Your task to perform on an android device: Show me productivity apps on the Play Store Image 0: 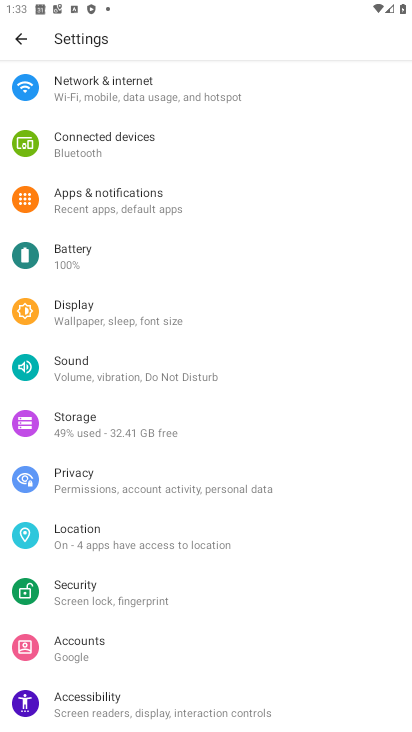
Step 0: press home button
Your task to perform on an android device: Show me productivity apps on the Play Store Image 1: 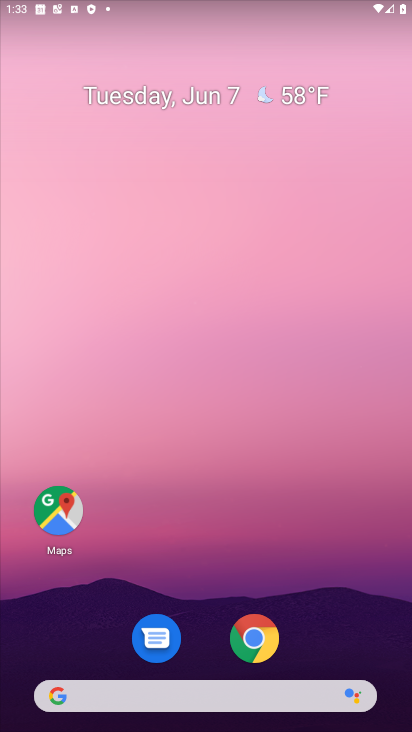
Step 1: drag from (203, 621) to (238, 201)
Your task to perform on an android device: Show me productivity apps on the Play Store Image 2: 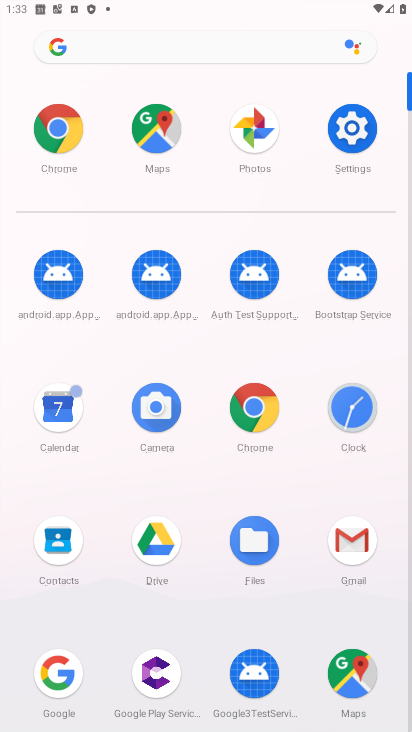
Step 2: drag from (248, 320) to (279, 242)
Your task to perform on an android device: Show me productivity apps on the Play Store Image 3: 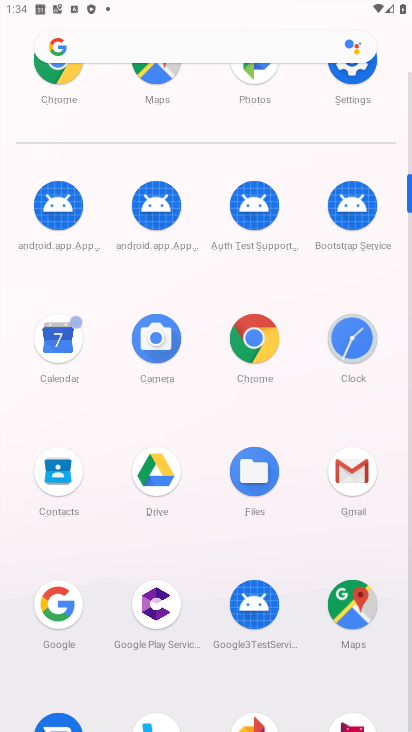
Step 3: drag from (211, 668) to (259, 289)
Your task to perform on an android device: Show me productivity apps on the Play Store Image 4: 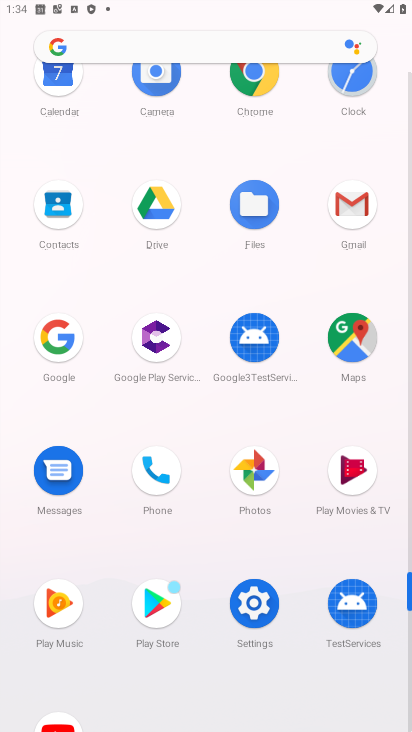
Step 4: click (160, 598)
Your task to perform on an android device: Show me productivity apps on the Play Store Image 5: 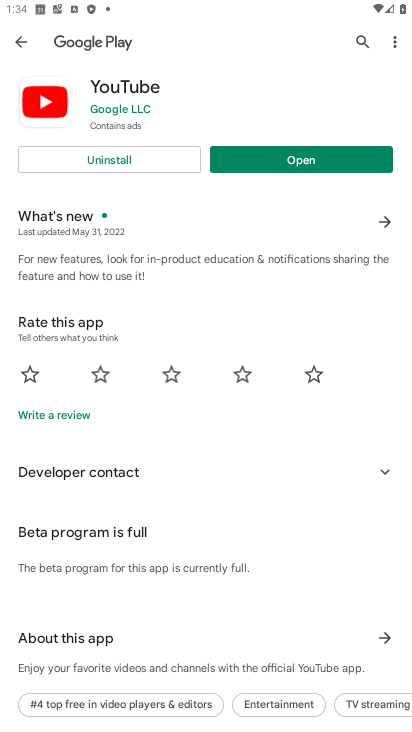
Step 5: click (17, 34)
Your task to perform on an android device: Show me productivity apps on the Play Store Image 6: 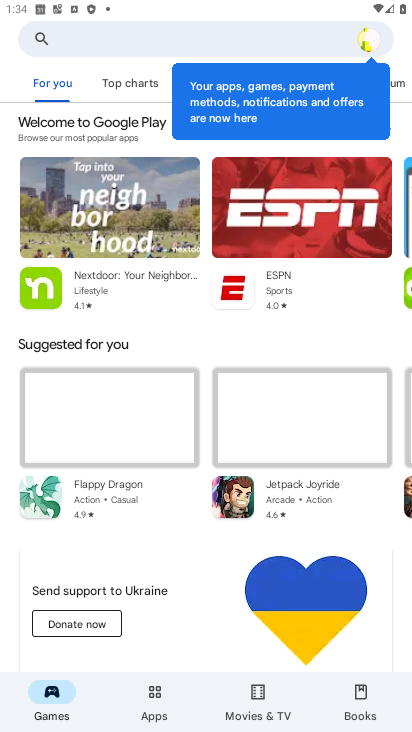
Step 6: click (151, 712)
Your task to perform on an android device: Show me productivity apps on the Play Store Image 7: 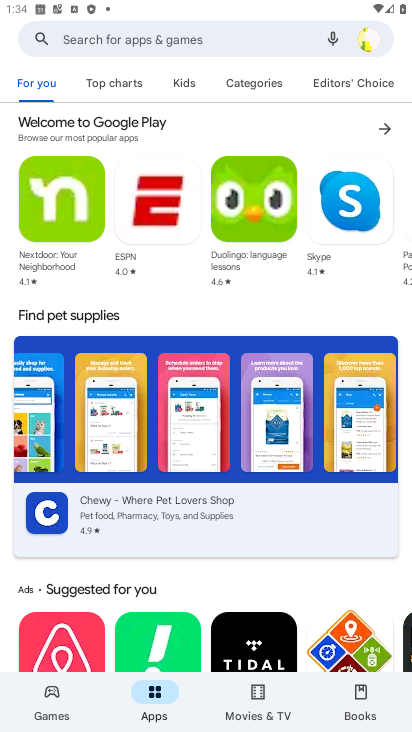
Step 7: click (348, 82)
Your task to perform on an android device: Show me productivity apps on the Play Store Image 8: 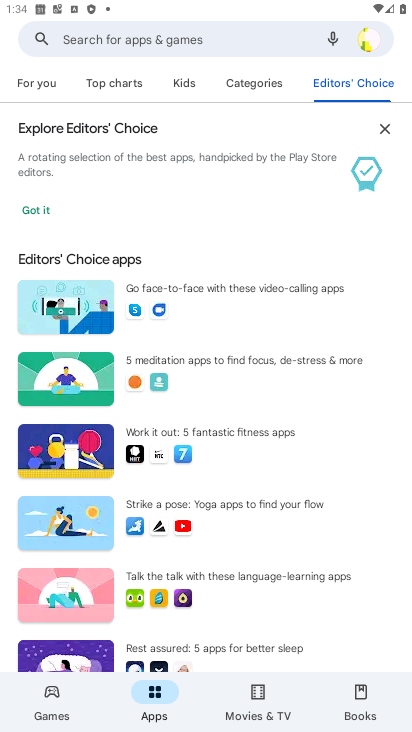
Step 8: click (256, 86)
Your task to perform on an android device: Show me productivity apps on the Play Store Image 9: 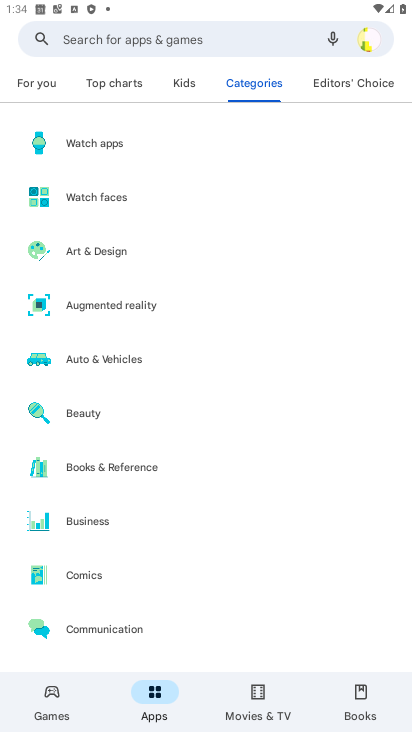
Step 9: drag from (146, 550) to (202, 88)
Your task to perform on an android device: Show me productivity apps on the Play Store Image 10: 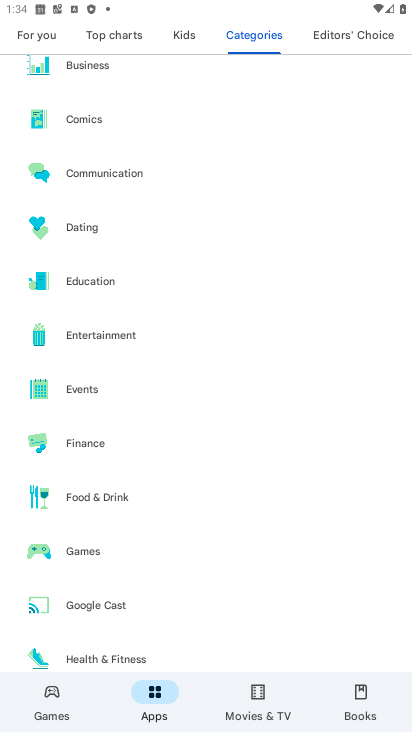
Step 10: drag from (103, 575) to (170, 171)
Your task to perform on an android device: Show me productivity apps on the Play Store Image 11: 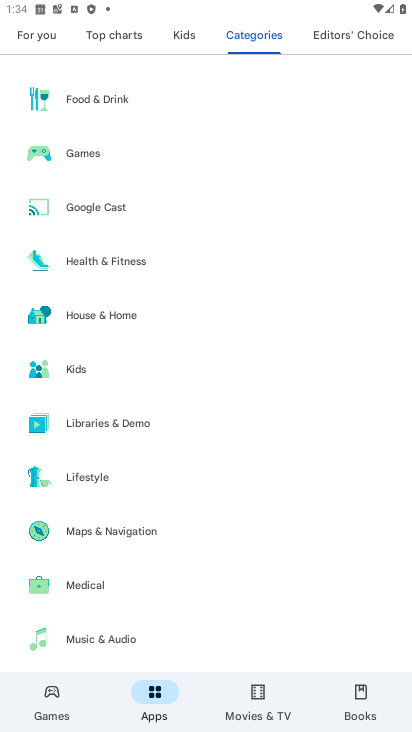
Step 11: drag from (136, 557) to (210, 125)
Your task to perform on an android device: Show me productivity apps on the Play Store Image 12: 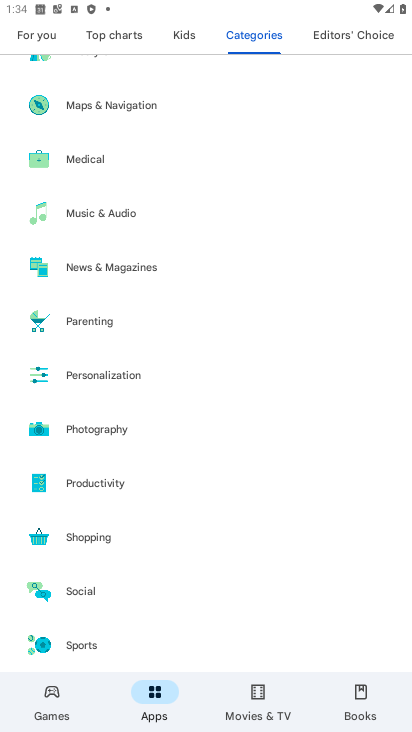
Step 12: drag from (114, 581) to (204, 103)
Your task to perform on an android device: Show me productivity apps on the Play Store Image 13: 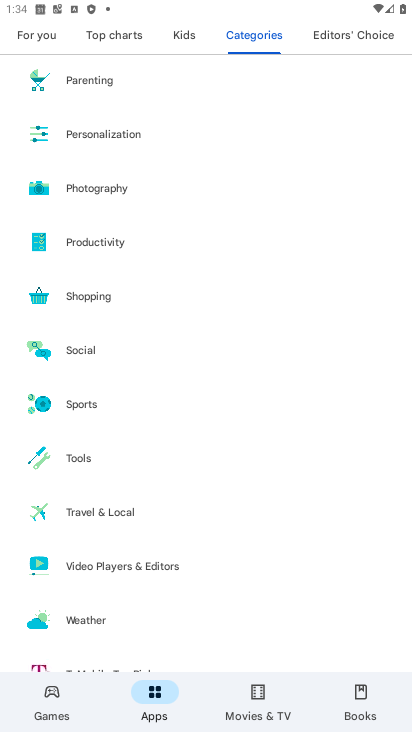
Step 13: drag from (114, 607) to (195, 188)
Your task to perform on an android device: Show me productivity apps on the Play Store Image 14: 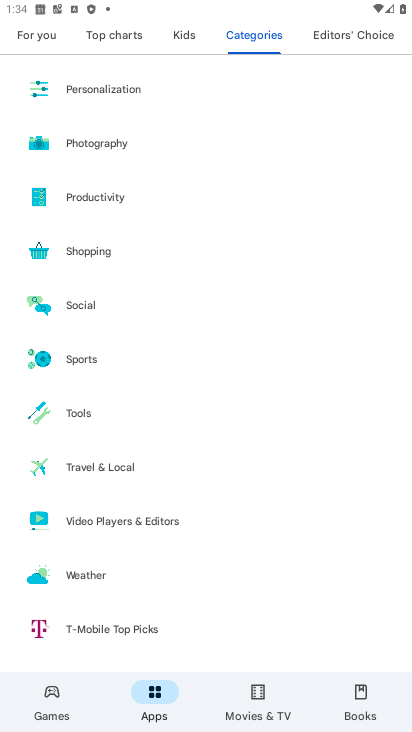
Step 14: drag from (117, 575) to (185, 251)
Your task to perform on an android device: Show me productivity apps on the Play Store Image 15: 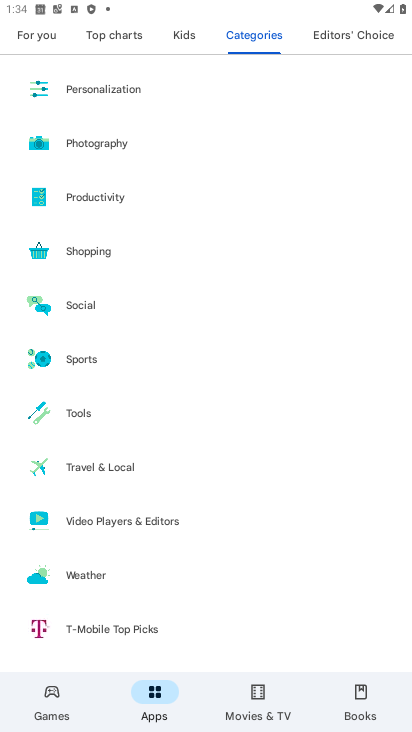
Step 15: click (93, 200)
Your task to perform on an android device: Show me productivity apps on the Play Store Image 16: 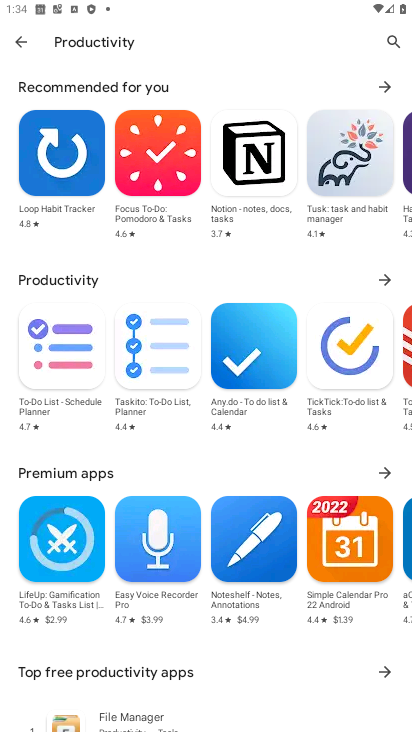
Step 16: task complete